Your task to perform on an android device: Add "macbook" to the cart on target, then select checkout. Image 0: 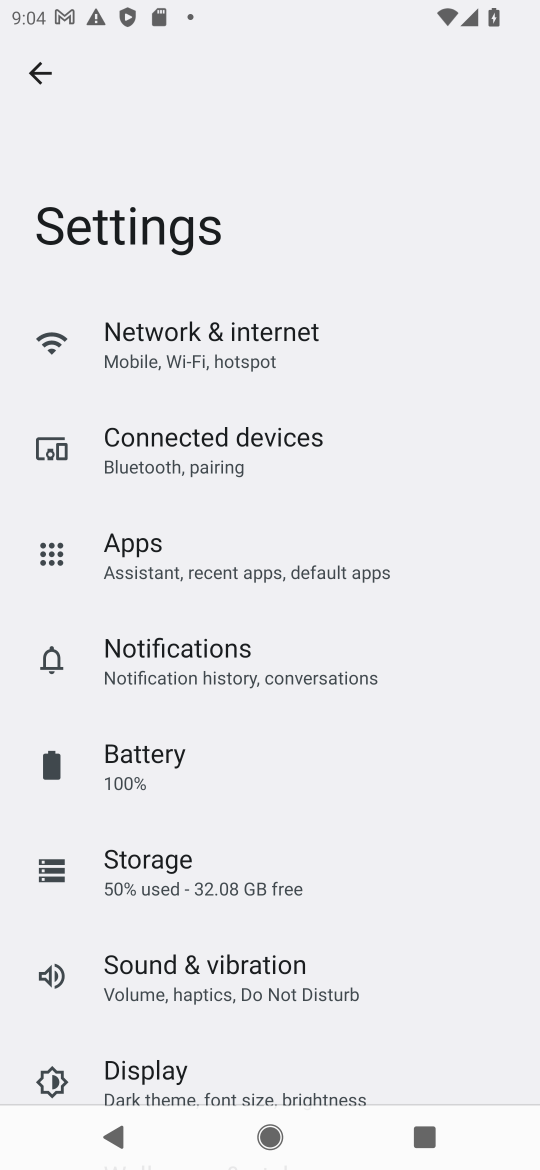
Step 0: press home button
Your task to perform on an android device: Add "macbook" to the cart on target, then select checkout. Image 1: 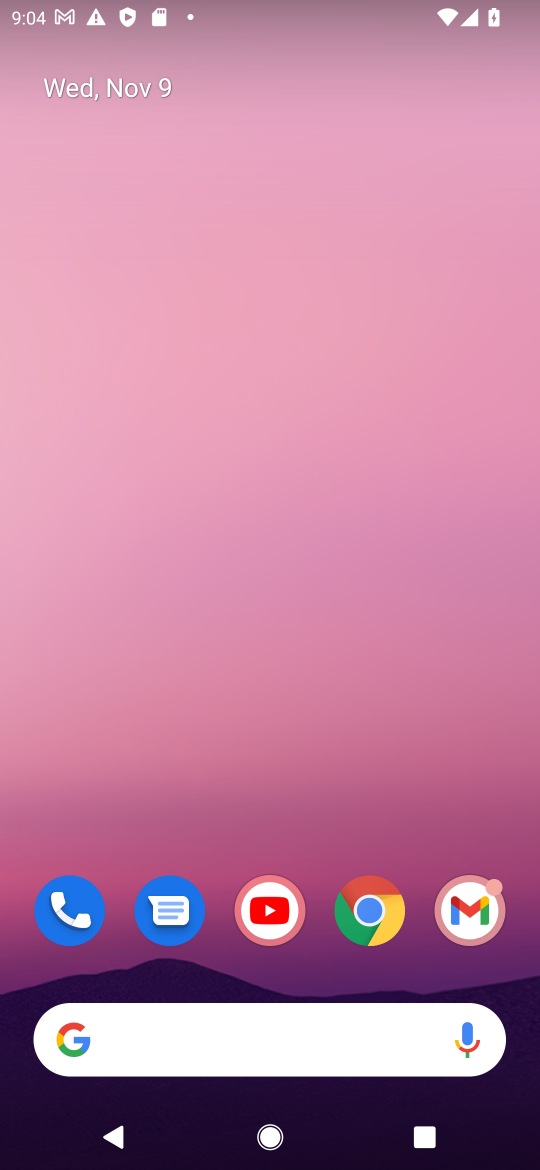
Step 1: click (358, 922)
Your task to perform on an android device: Add "macbook" to the cart on target, then select checkout. Image 2: 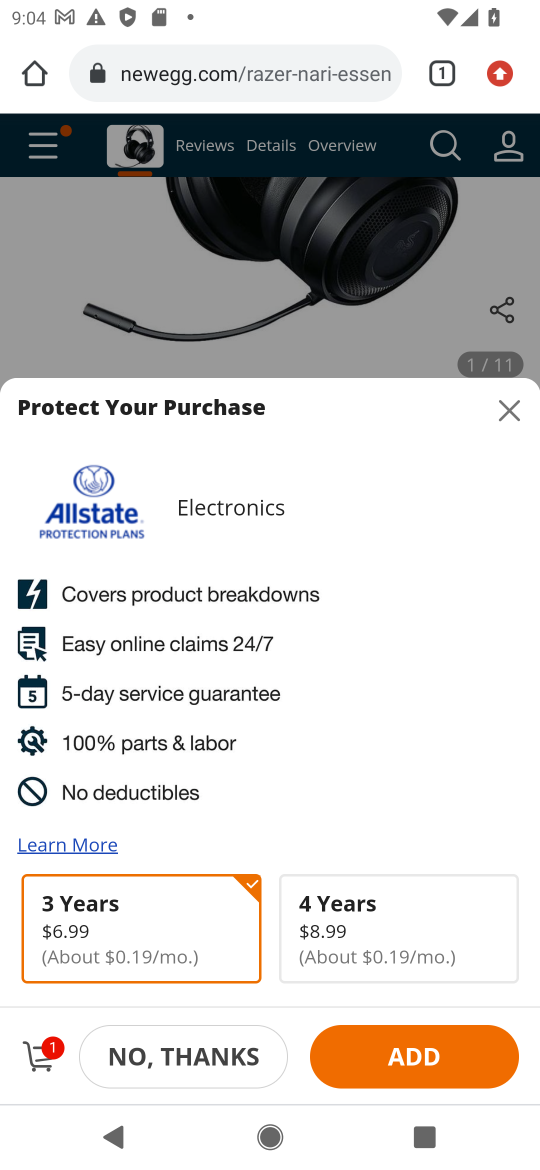
Step 2: click (260, 76)
Your task to perform on an android device: Add "macbook" to the cart on target, then select checkout. Image 3: 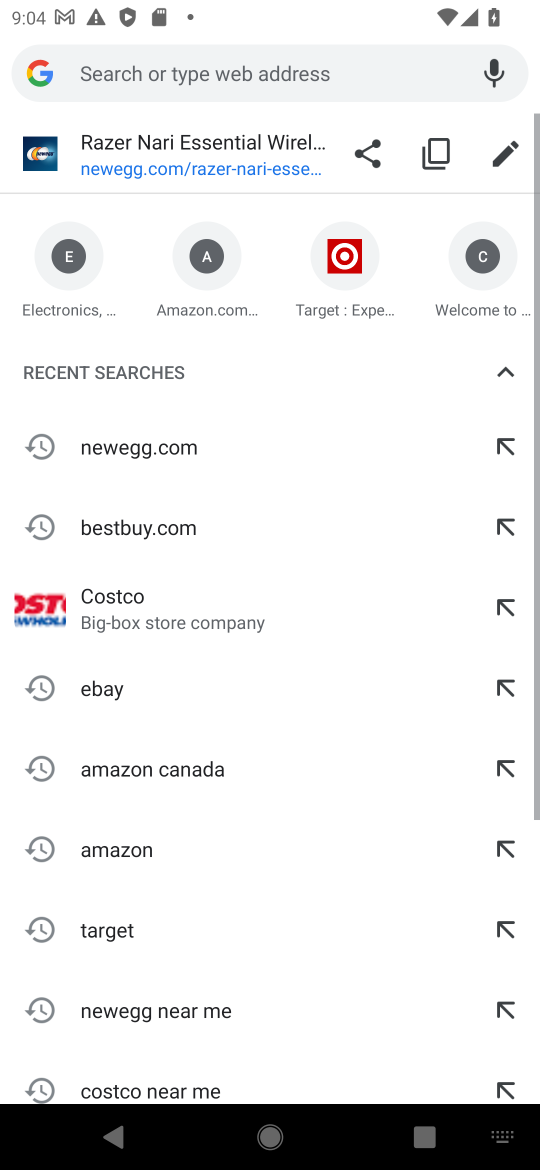
Step 3: click (331, 308)
Your task to perform on an android device: Add "macbook" to the cart on target, then select checkout. Image 4: 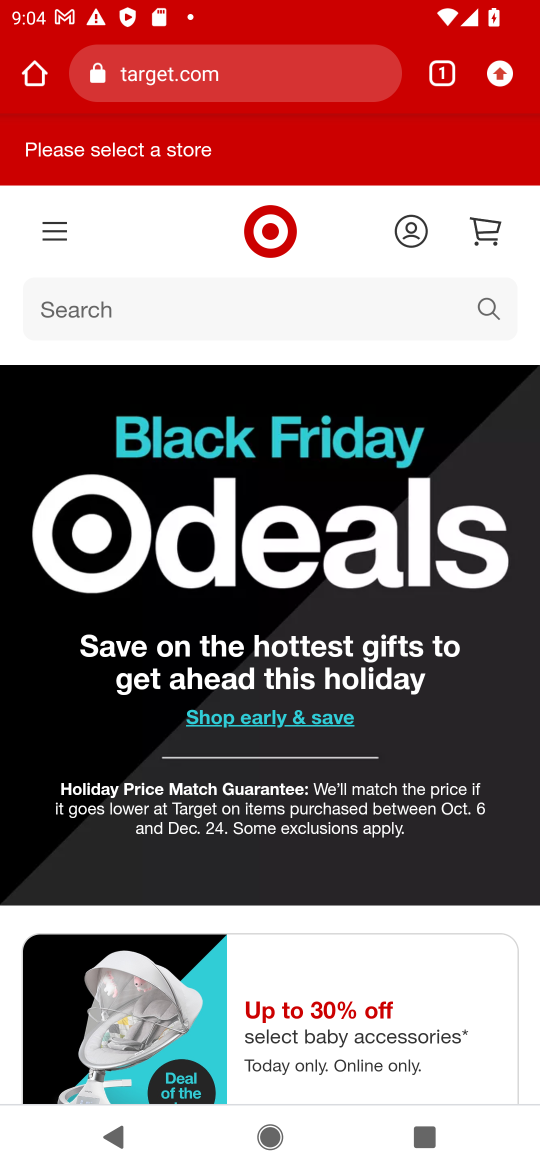
Step 4: click (484, 305)
Your task to perform on an android device: Add "macbook" to the cart on target, then select checkout. Image 5: 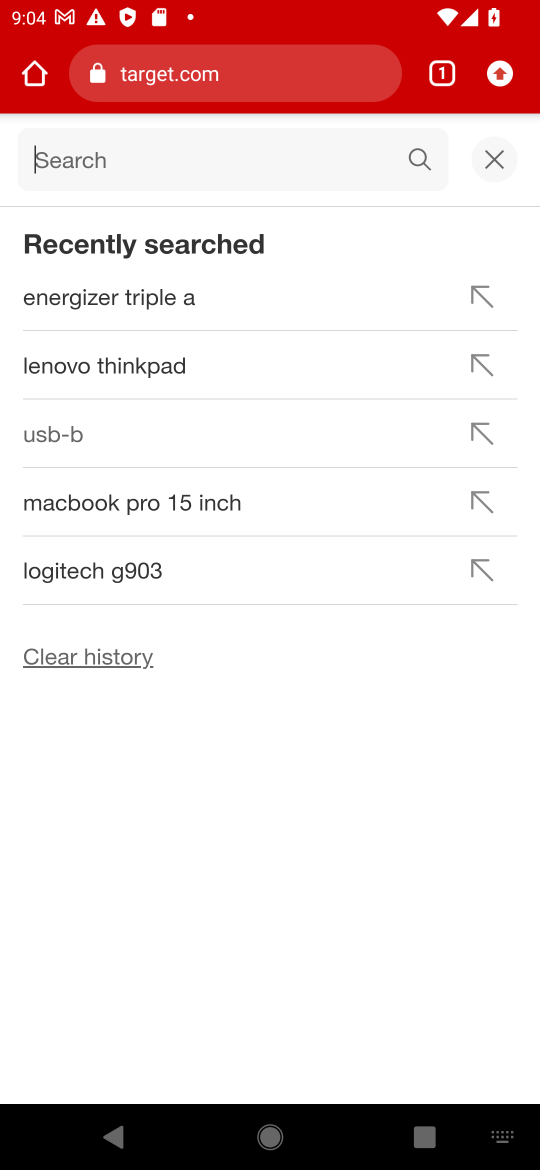
Step 5: type "macbook"
Your task to perform on an android device: Add "macbook" to the cart on target, then select checkout. Image 6: 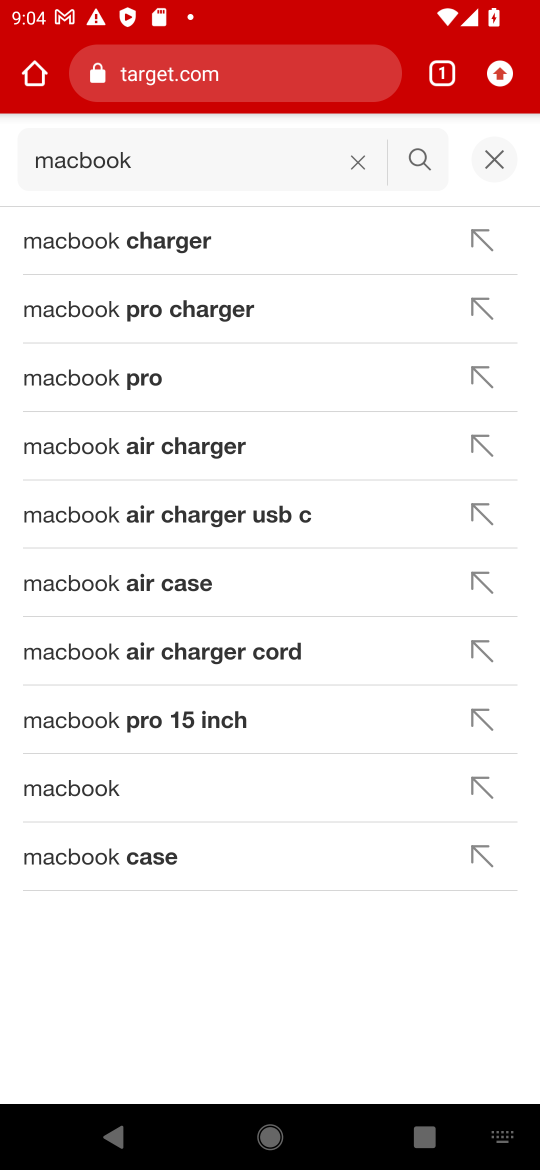
Step 6: click (100, 783)
Your task to perform on an android device: Add "macbook" to the cart on target, then select checkout. Image 7: 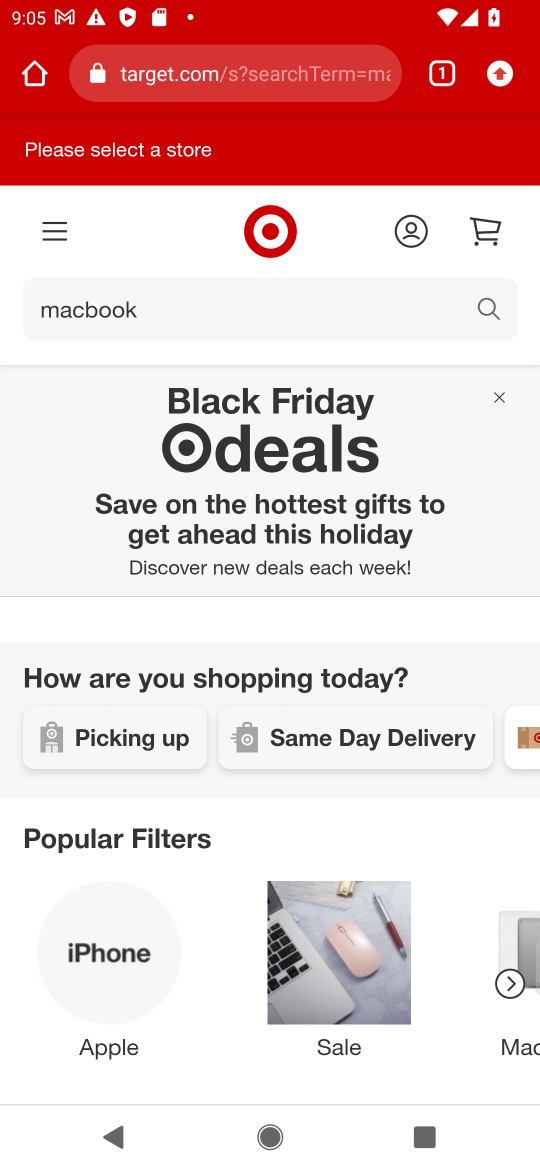
Step 7: drag from (223, 913) to (198, 488)
Your task to perform on an android device: Add "macbook" to the cart on target, then select checkout. Image 8: 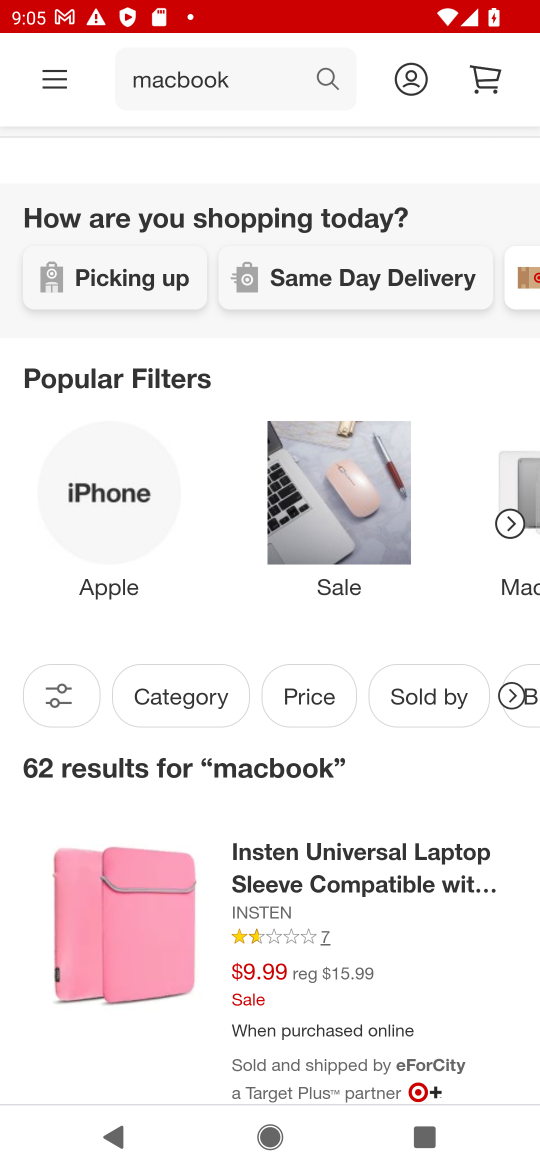
Step 8: drag from (211, 949) to (223, 746)
Your task to perform on an android device: Add "macbook" to the cart on target, then select checkout. Image 9: 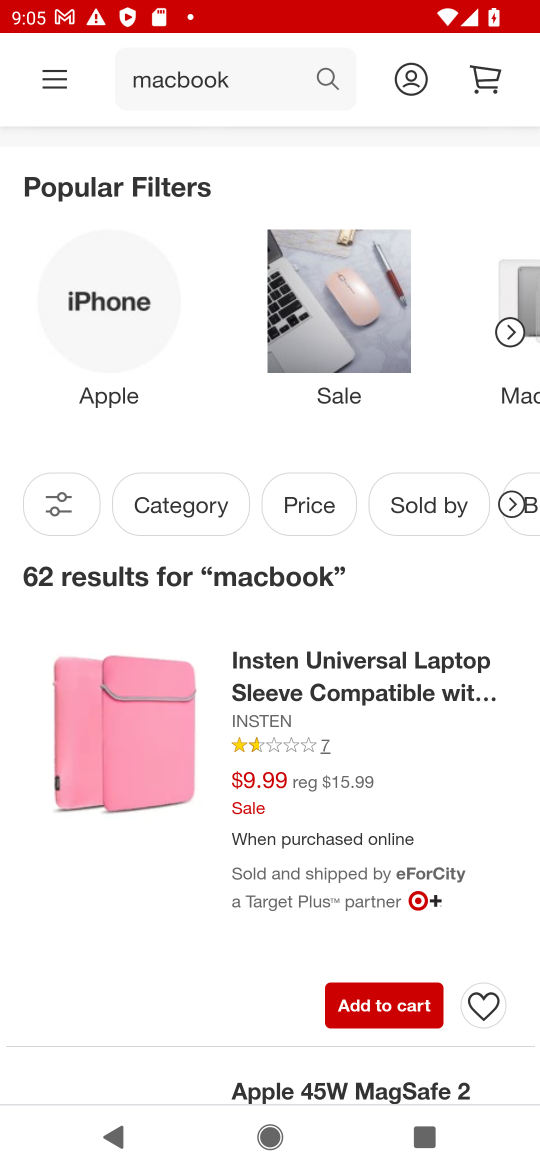
Step 9: click (183, 816)
Your task to perform on an android device: Add "macbook" to the cart on target, then select checkout. Image 10: 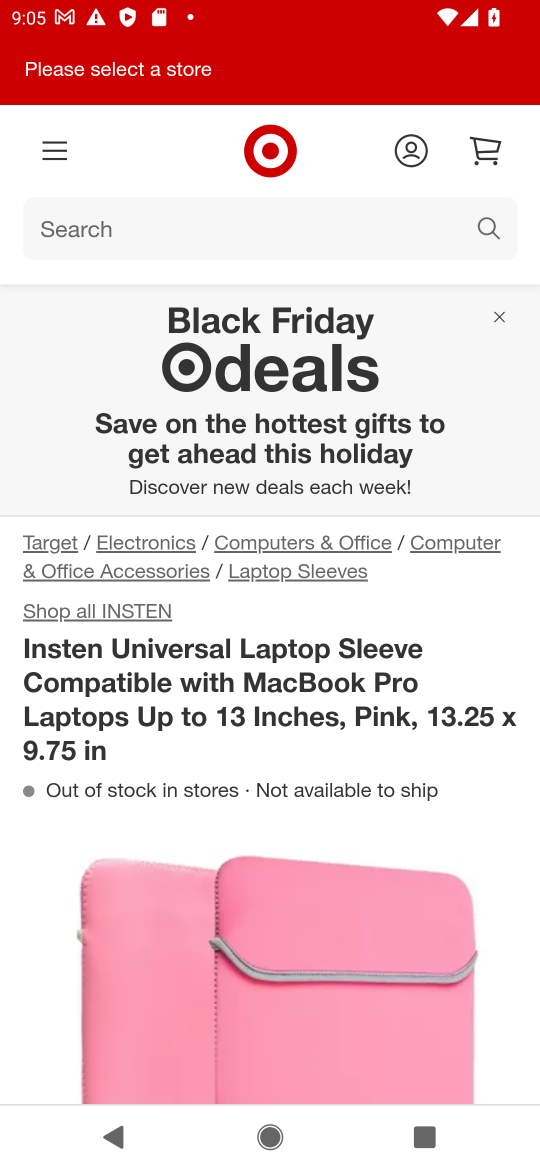
Step 10: drag from (200, 866) to (211, 485)
Your task to perform on an android device: Add "macbook" to the cart on target, then select checkout. Image 11: 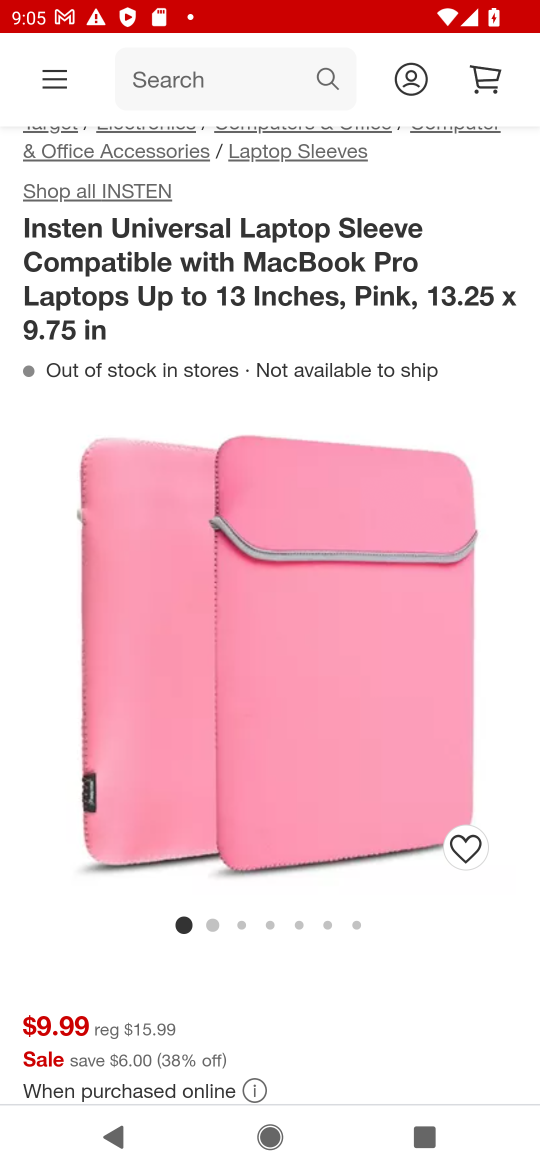
Step 11: drag from (211, 875) to (222, 420)
Your task to perform on an android device: Add "macbook" to the cart on target, then select checkout. Image 12: 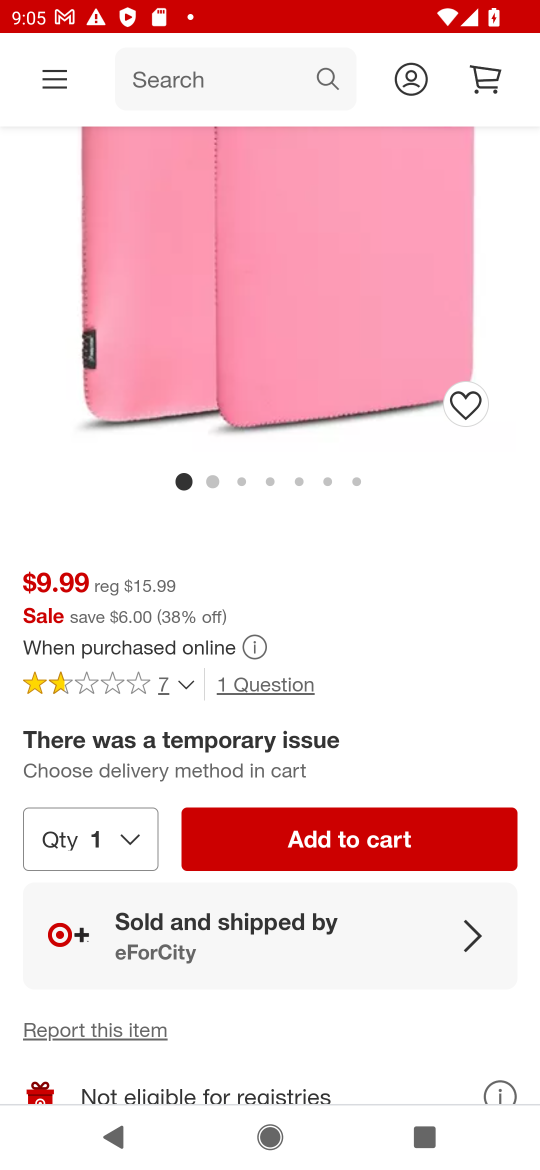
Step 12: click (316, 851)
Your task to perform on an android device: Add "macbook" to the cart on target, then select checkout. Image 13: 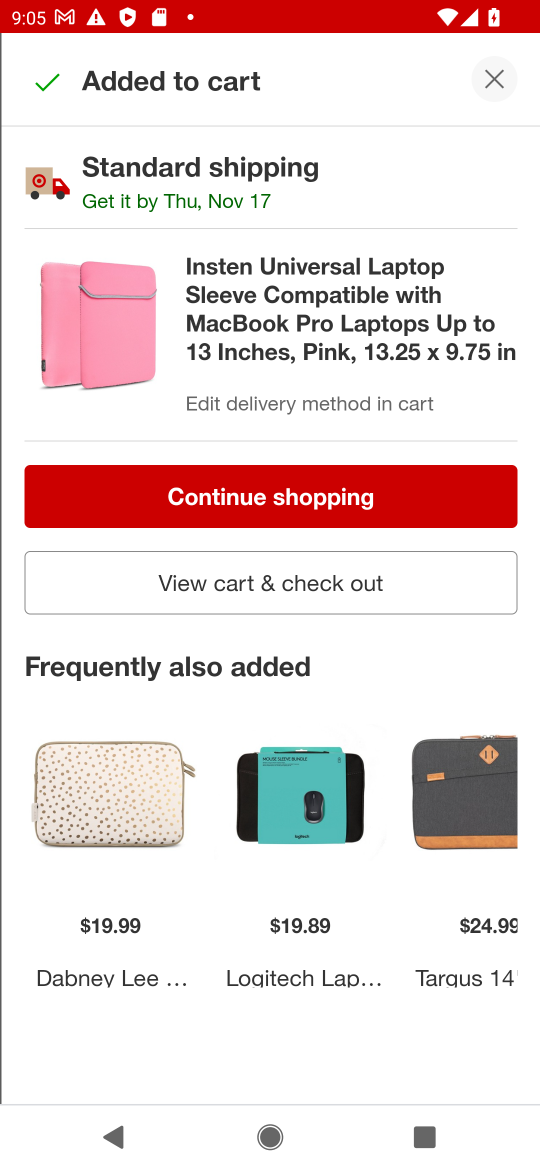
Step 13: click (251, 592)
Your task to perform on an android device: Add "macbook" to the cart on target, then select checkout. Image 14: 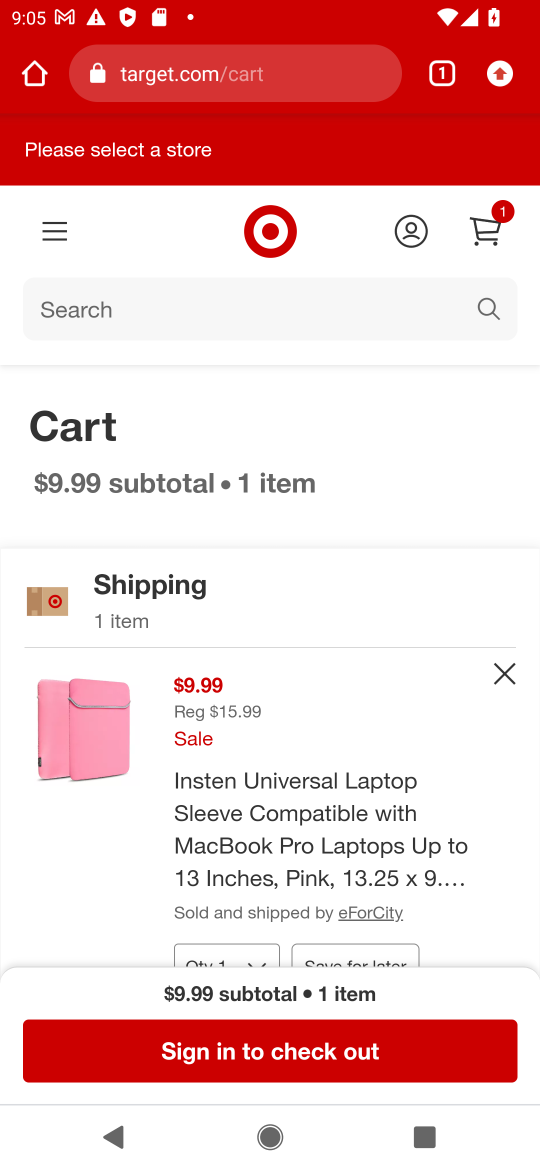
Step 14: task complete